Your task to perform on an android device: Clear the cart on bestbuy. Add "dell xps" to the cart on bestbuy Image 0: 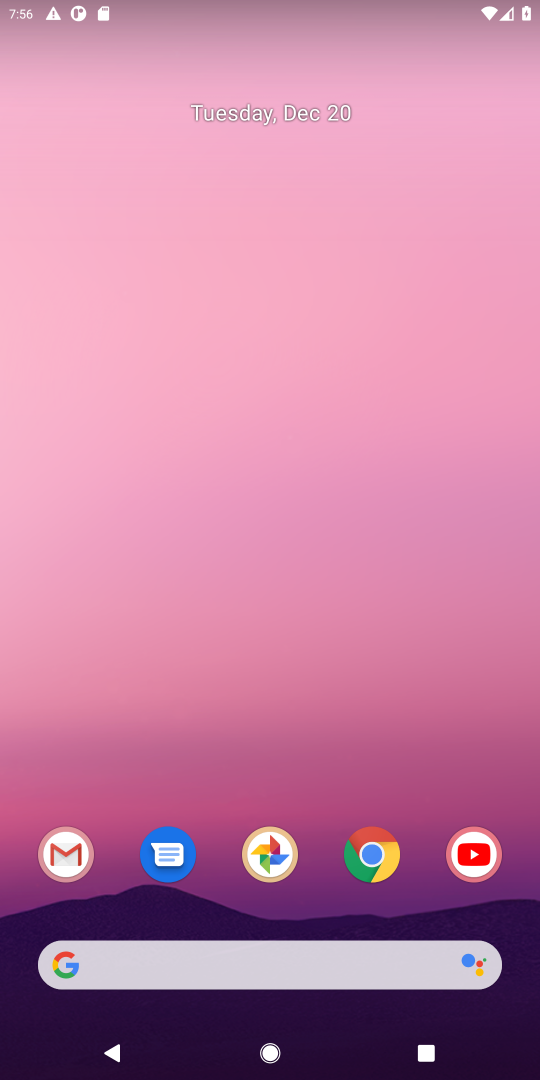
Step 0: click (382, 867)
Your task to perform on an android device: Clear the cart on bestbuy. Add "dell xps" to the cart on bestbuy Image 1: 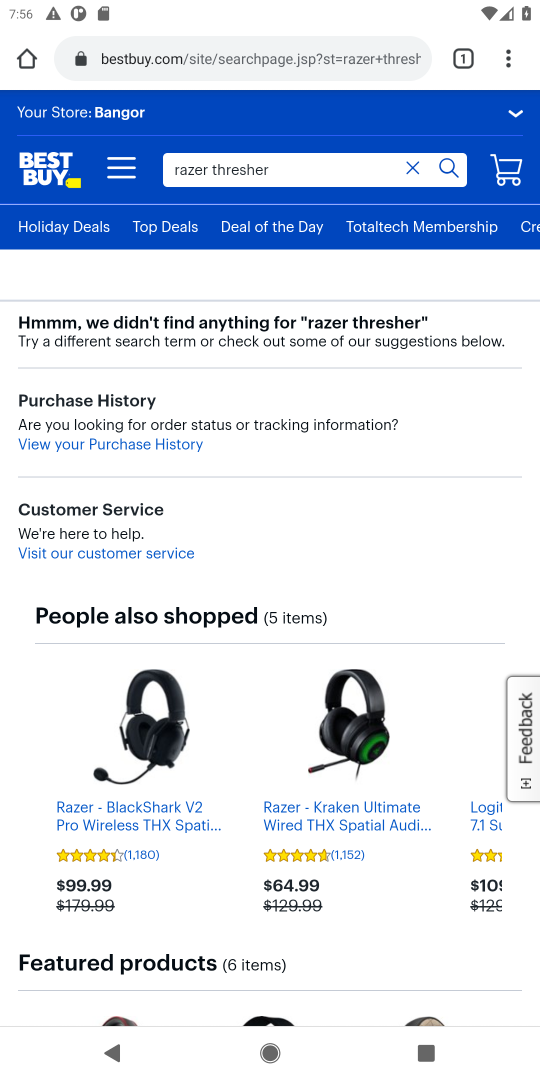
Step 1: click (518, 164)
Your task to perform on an android device: Clear the cart on bestbuy. Add "dell xps" to the cart on bestbuy Image 2: 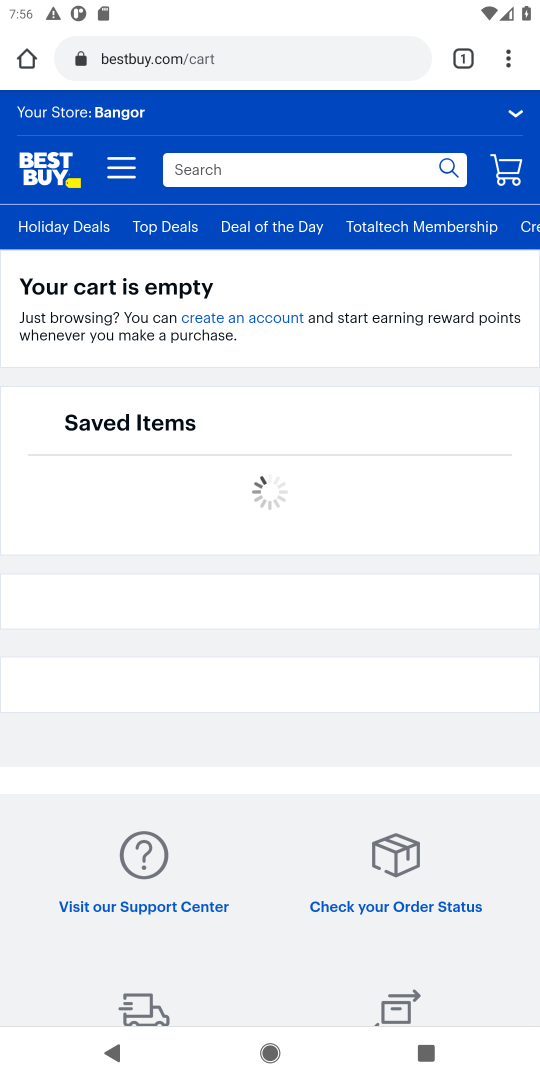
Step 2: click (231, 174)
Your task to perform on an android device: Clear the cart on bestbuy. Add "dell xps" to the cart on bestbuy Image 3: 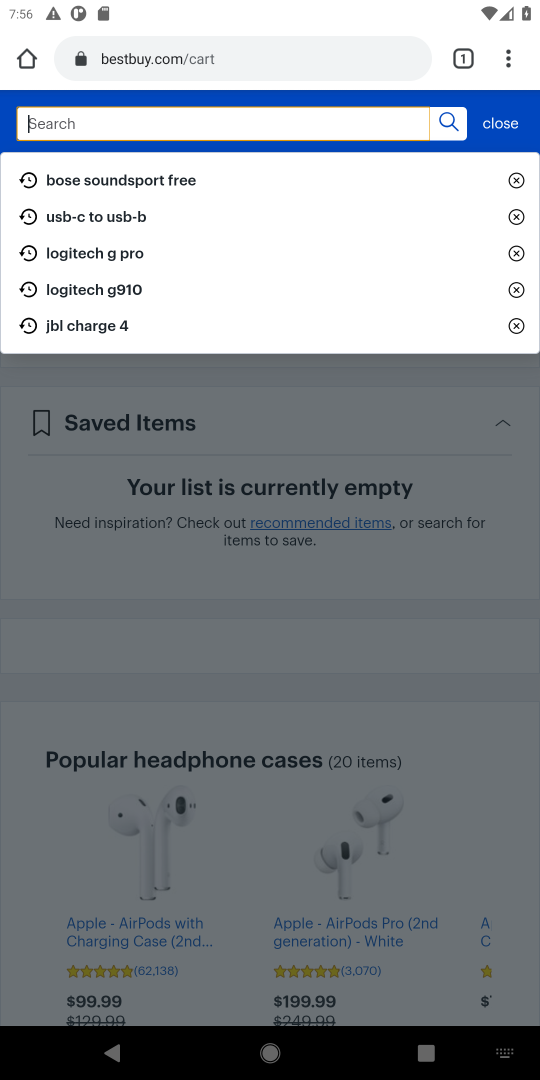
Step 3: type "dell xps"
Your task to perform on an android device: Clear the cart on bestbuy. Add "dell xps" to the cart on bestbuy Image 4: 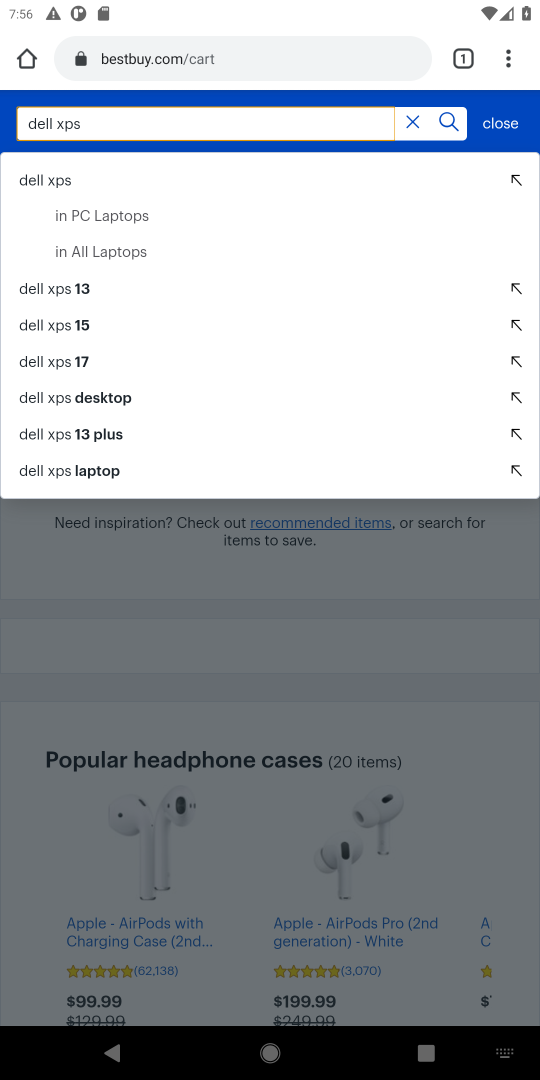
Step 4: click (32, 184)
Your task to perform on an android device: Clear the cart on bestbuy. Add "dell xps" to the cart on bestbuy Image 5: 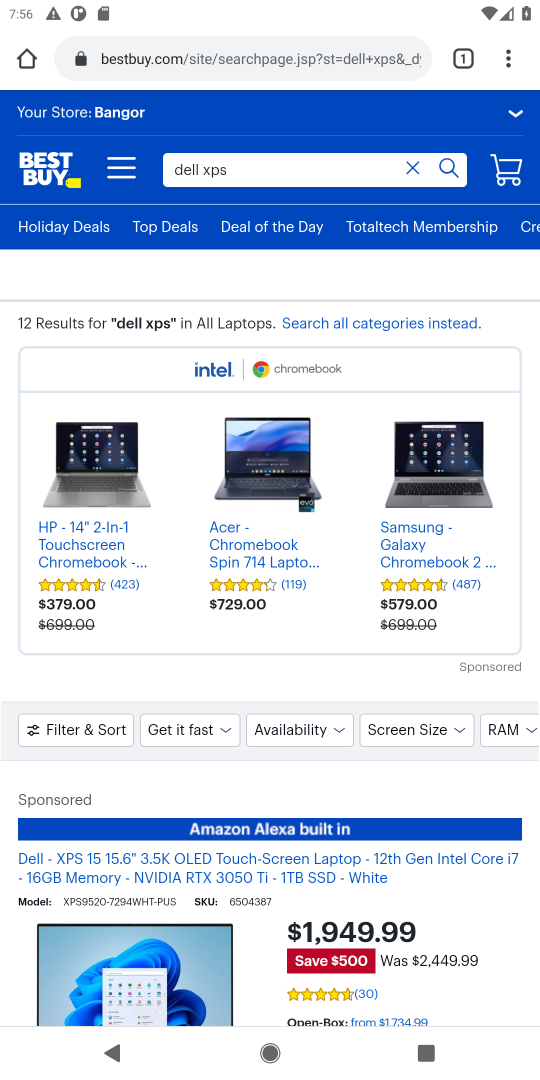
Step 5: drag from (156, 877) to (119, 546)
Your task to perform on an android device: Clear the cart on bestbuy. Add "dell xps" to the cart on bestbuy Image 6: 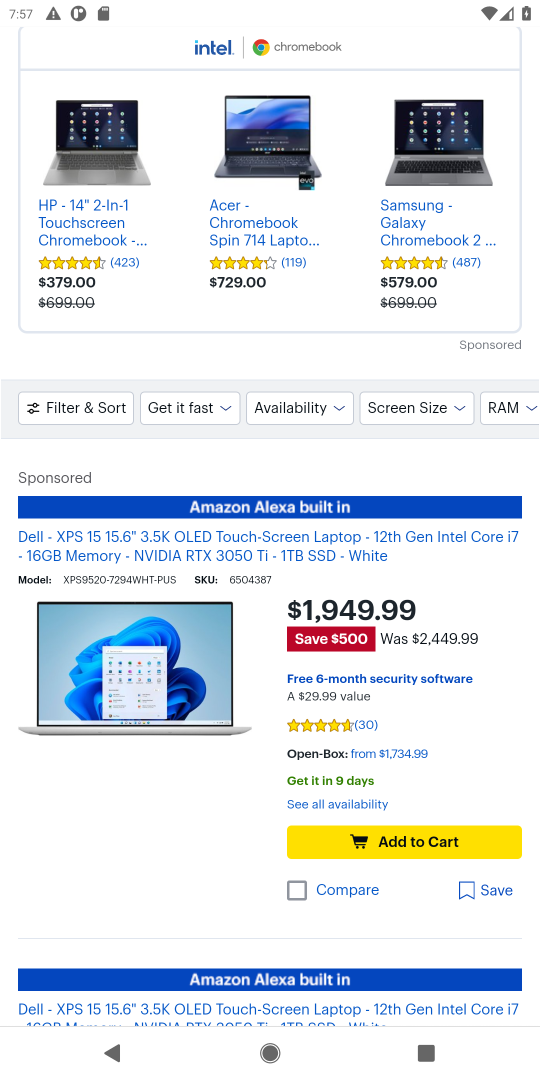
Step 6: click (386, 789)
Your task to perform on an android device: Clear the cart on bestbuy. Add "dell xps" to the cart on bestbuy Image 7: 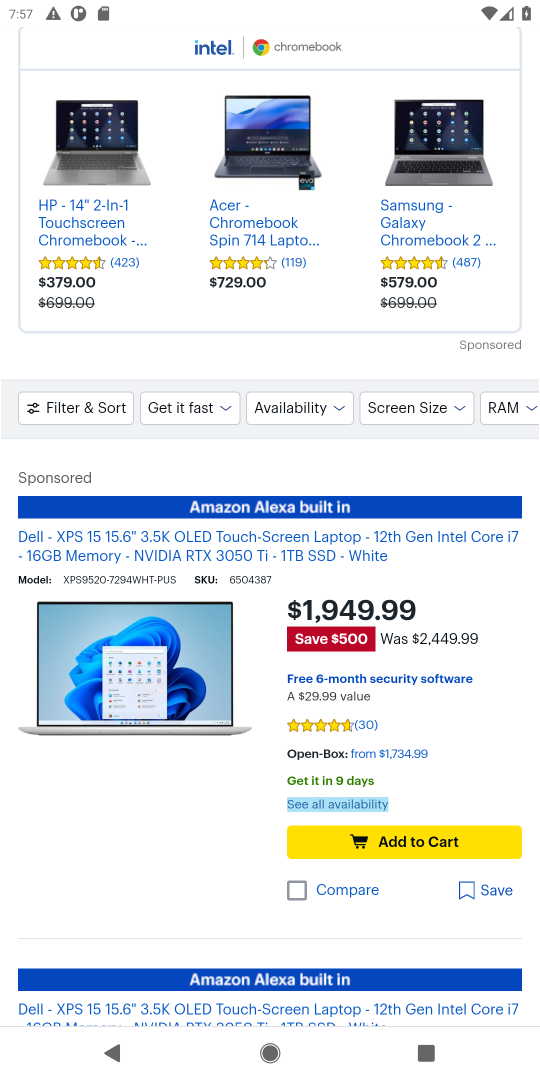
Step 7: click (381, 837)
Your task to perform on an android device: Clear the cart on bestbuy. Add "dell xps" to the cart on bestbuy Image 8: 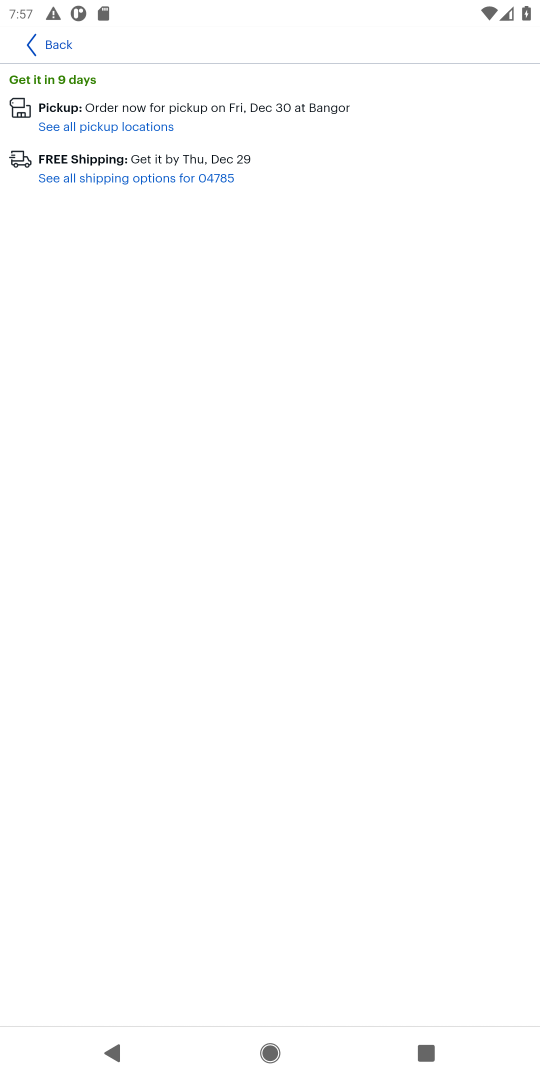
Step 8: click (39, 47)
Your task to perform on an android device: Clear the cart on bestbuy. Add "dell xps" to the cart on bestbuy Image 9: 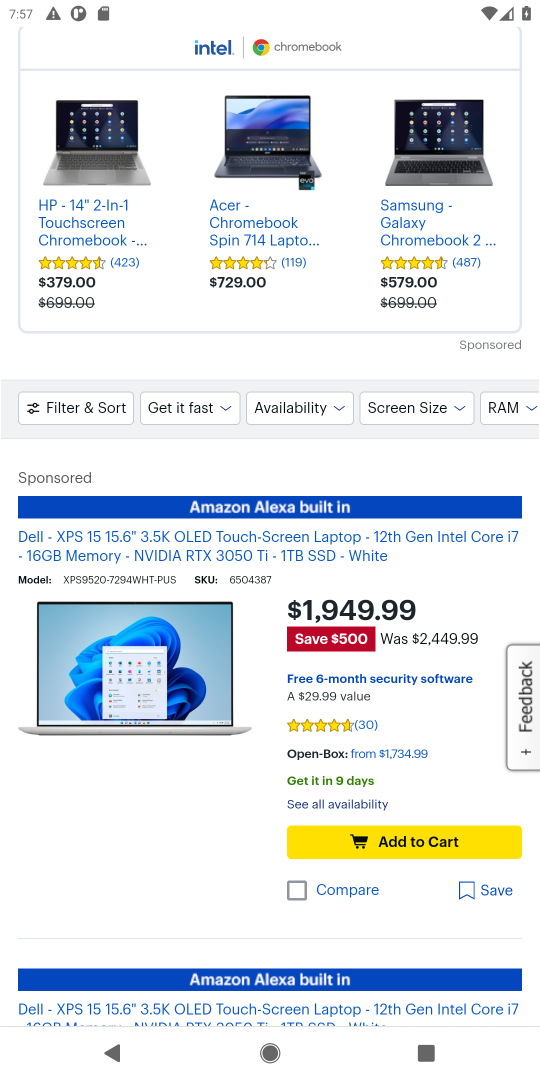
Step 9: click (381, 846)
Your task to perform on an android device: Clear the cart on bestbuy. Add "dell xps" to the cart on bestbuy Image 10: 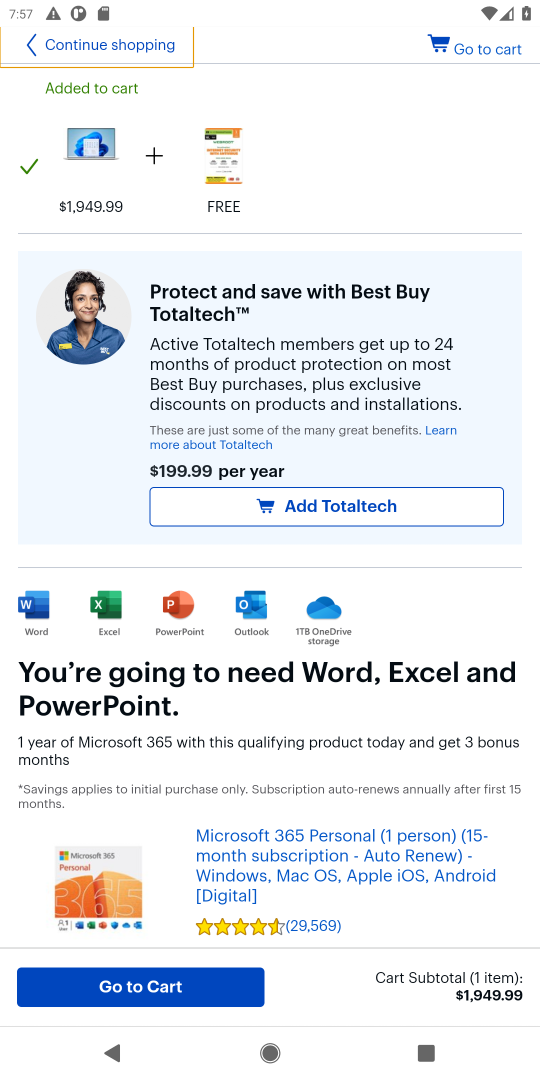
Step 10: task complete